Your task to perform on an android device: Go to wifi settings Image 0: 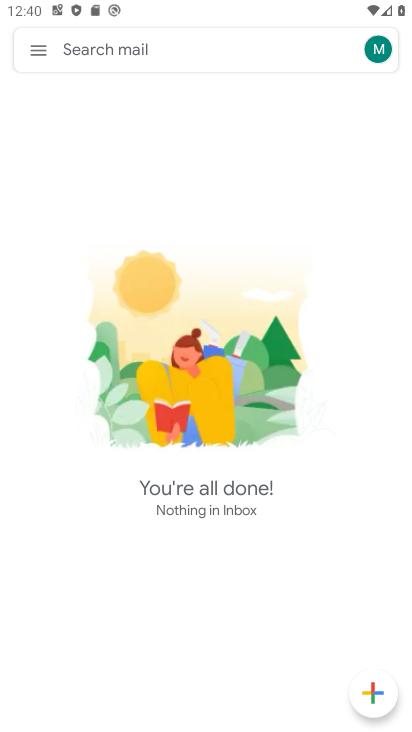
Step 0: click (6, 425)
Your task to perform on an android device: Go to wifi settings Image 1: 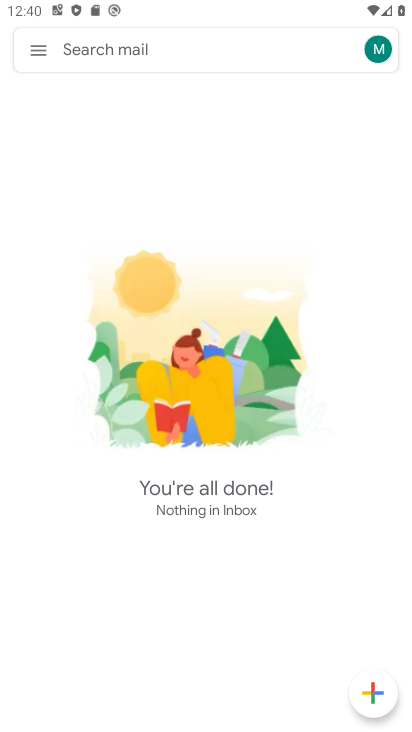
Step 1: press home button
Your task to perform on an android device: Go to wifi settings Image 2: 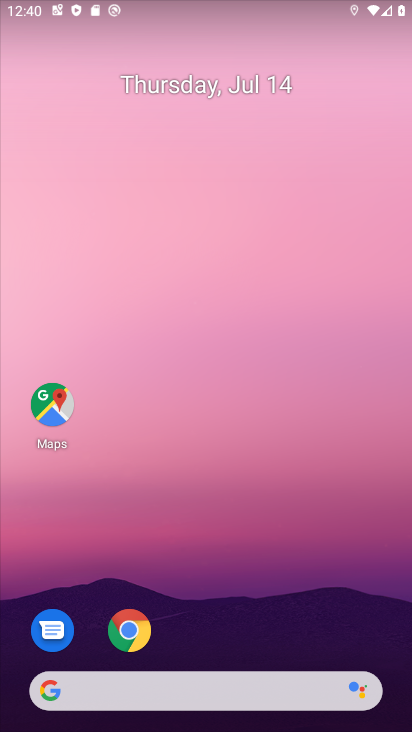
Step 2: drag from (213, 676) to (238, 253)
Your task to perform on an android device: Go to wifi settings Image 3: 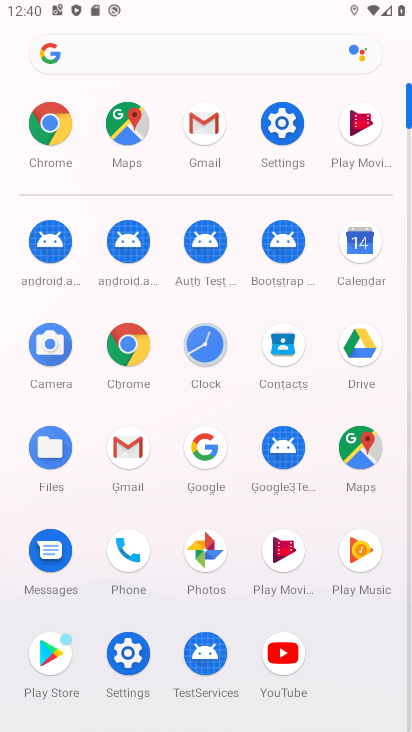
Step 3: click (278, 136)
Your task to perform on an android device: Go to wifi settings Image 4: 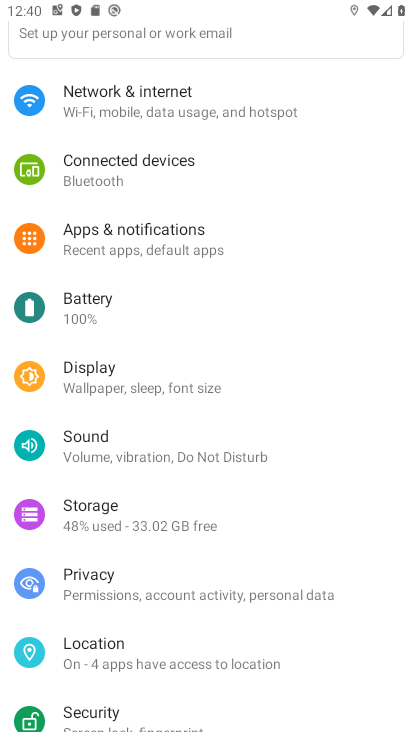
Step 4: click (149, 107)
Your task to perform on an android device: Go to wifi settings Image 5: 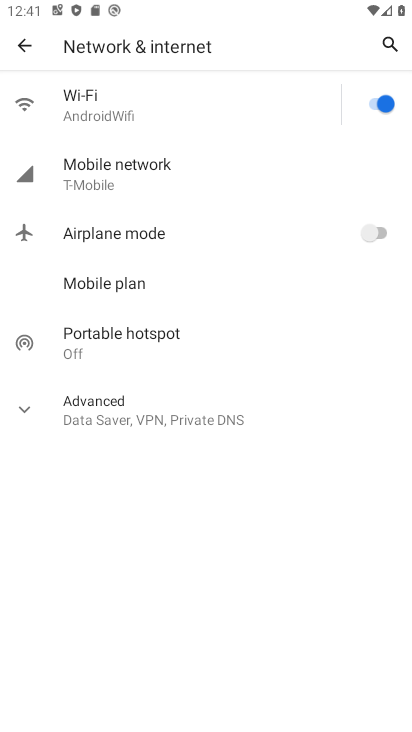
Step 5: click (140, 412)
Your task to perform on an android device: Go to wifi settings Image 6: 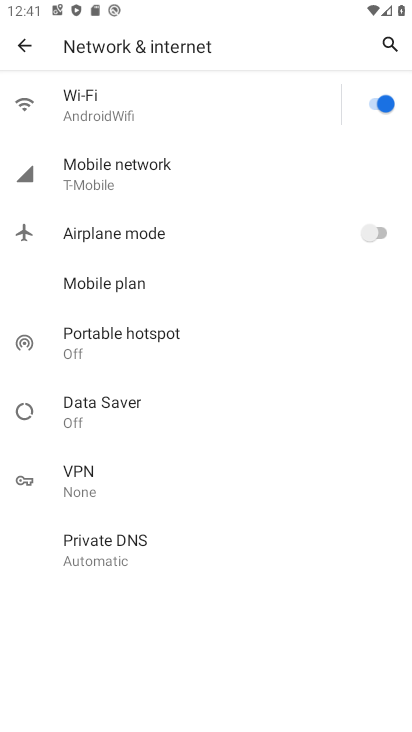
Step 6: click (94, 114)
Your task to perform on an android device: Go to wifi settings Image 7: 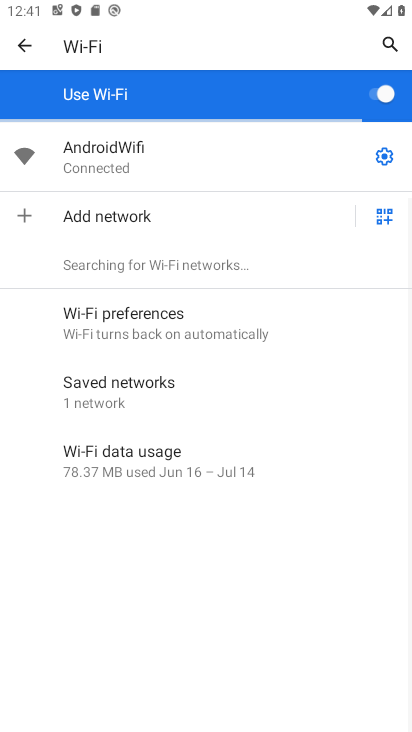
Step 7: click (393, 155)
Your task to perform on an android device: Go to wifi settings Image 8: 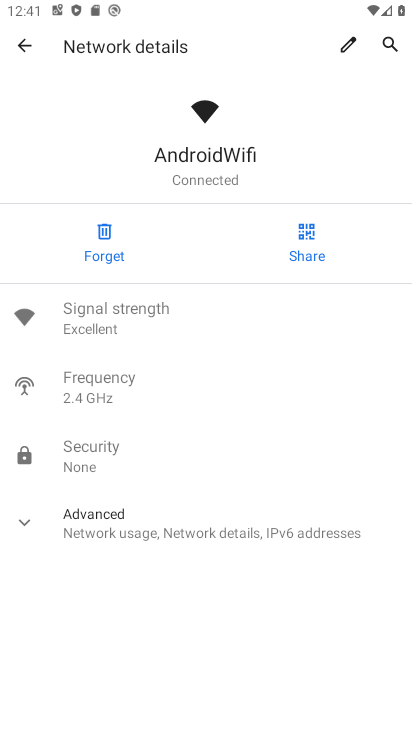
Step 8: click (149, 527)
Your task to perform on an android device: Go to wifi settings Image 9: 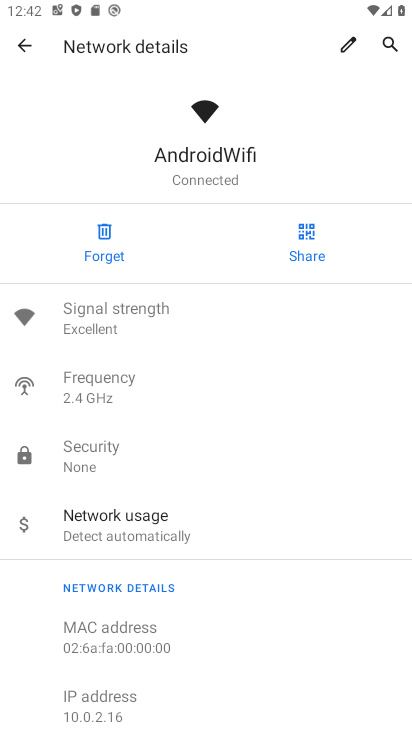
Step 9: task complete